Your task to perform on an android device: Open my contact list Image 0: 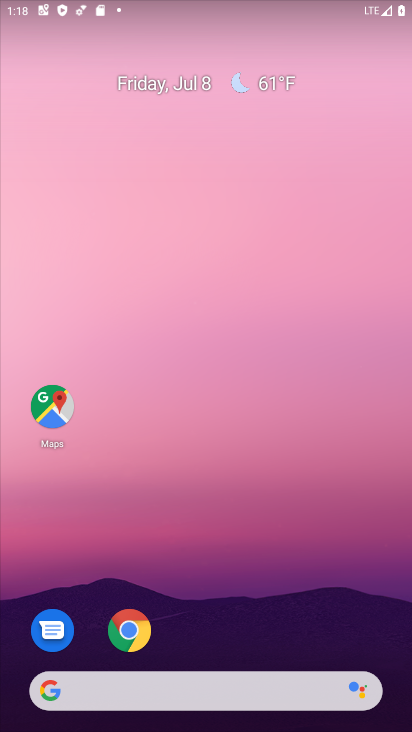
Step 0: drag from (398, 660) to (296, 21)
Your task to perform on an android device: Open my contact list Image 1: 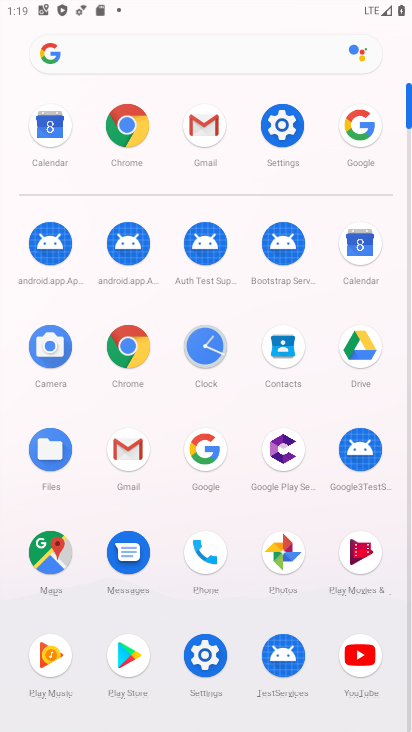
Step 1: click (276, 358)
Your task to perform on an android device: Open my contact list Image 2: 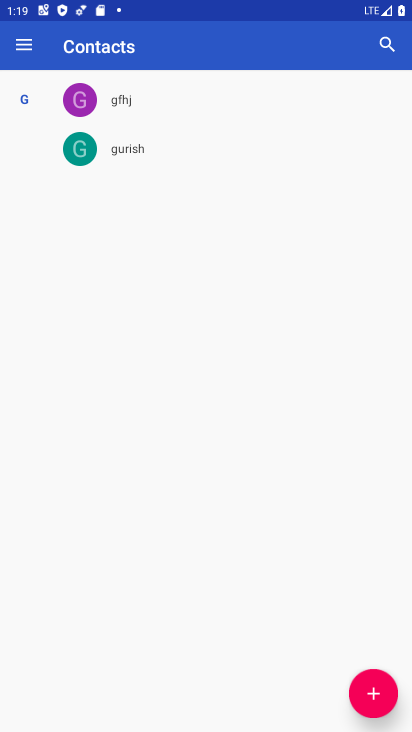
Step 2: click (21, 41)
Your task to perform on an android device: Open my contact list Image 3: 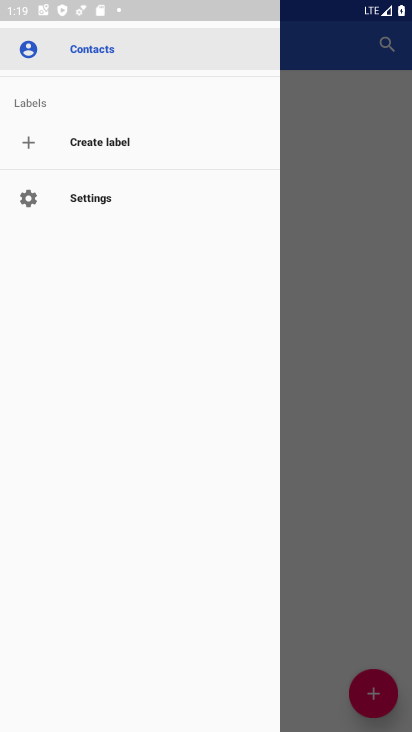
Step 3: task complete